Your task to perform on an android device: turn on the 12-hour format for clock Image 0: 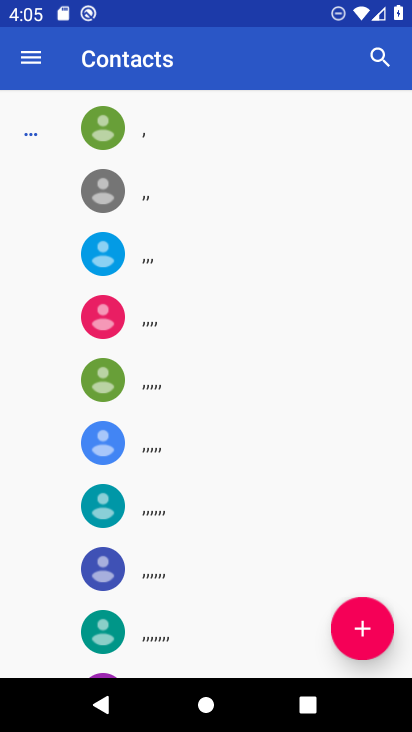
Step 0: press home button
Your task to perform on an android device: turn on the 12-hour format for clock Image 1: 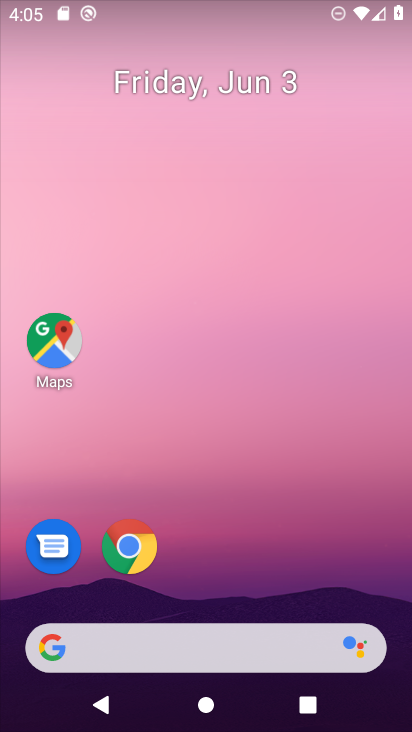
Step 1: drag from (280, 495) to (343, 28)
Your task to perform on an android device: turn on the 12-hour format for clock Image 2: 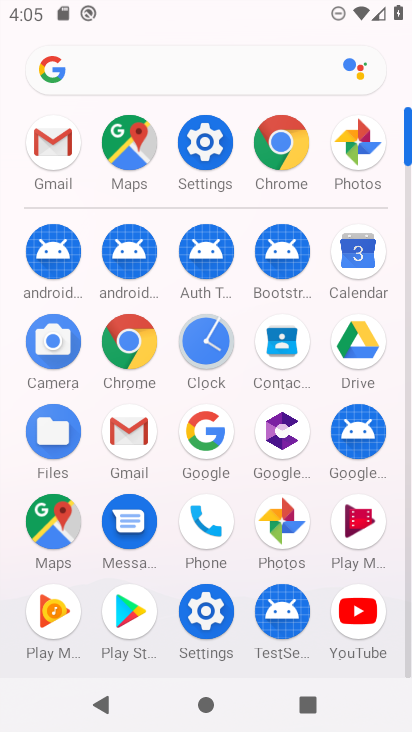
Step 2: click (195, 349)
Your task to perform on an android device: turn on the 12-hour format for clock Image 3: 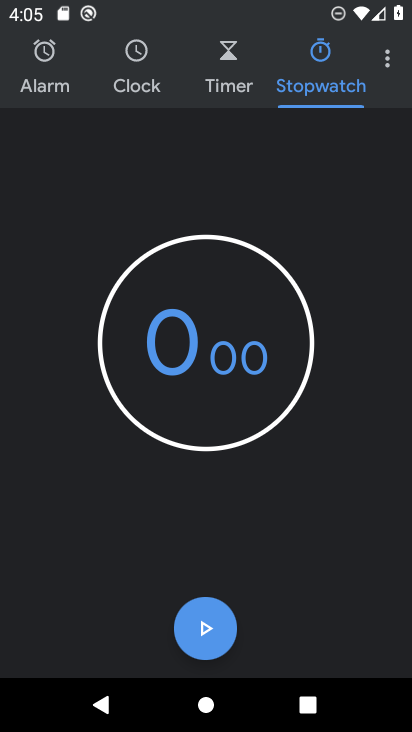
Step 3: click (137, 67)
Your task to perform on an android device: turn on the 12-hour format for clock Image 4: 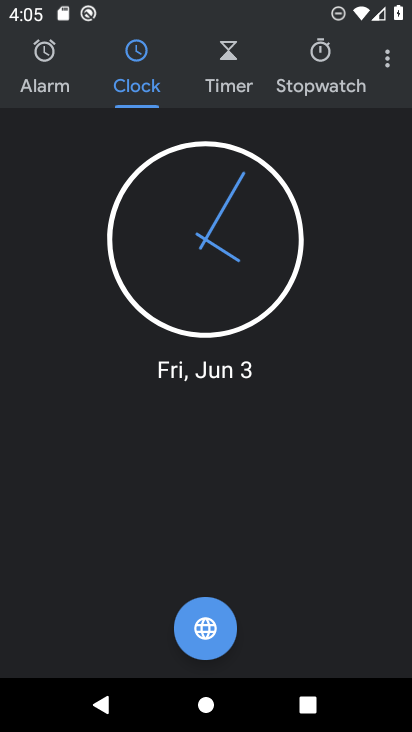
Step 4: click (378, 57)
Your task to perform on an android device: turn on the 12-hour format for clock Image 5: 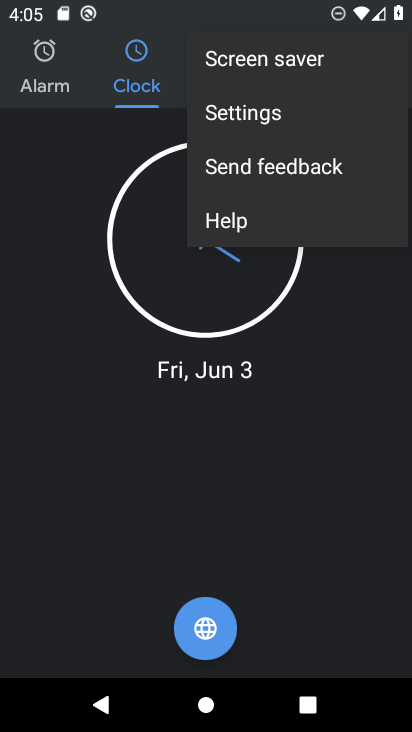
Step 5: click (322, 124)
Your task to perform on an android device: turn on the 12-hour format for clock Image 6: 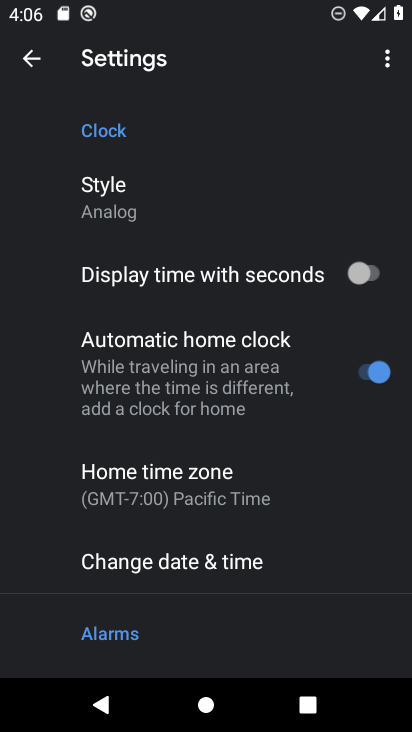
Step 6: click (294, 563)
Your task to perform on an android device: turn on the 12-hour format for clock Image 7: 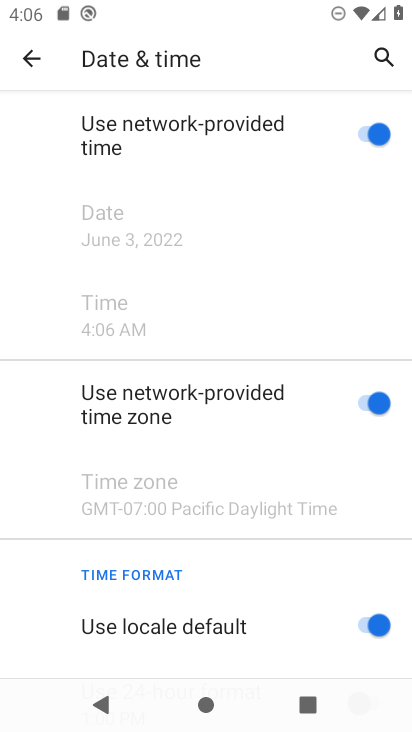
Step 7: task complete